Your task to perform on an android device: empty trash in the gmail app Image 0: 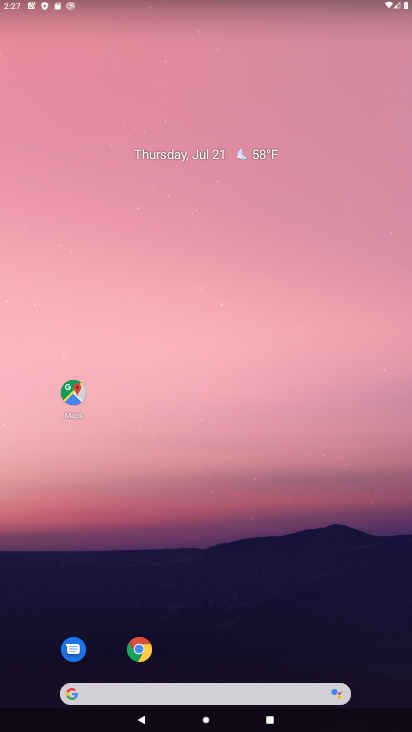
Step 0: drag from (241, 640) to (247, 173)
Your task to perform on an android device: empty trash in the gmail app Image 1: 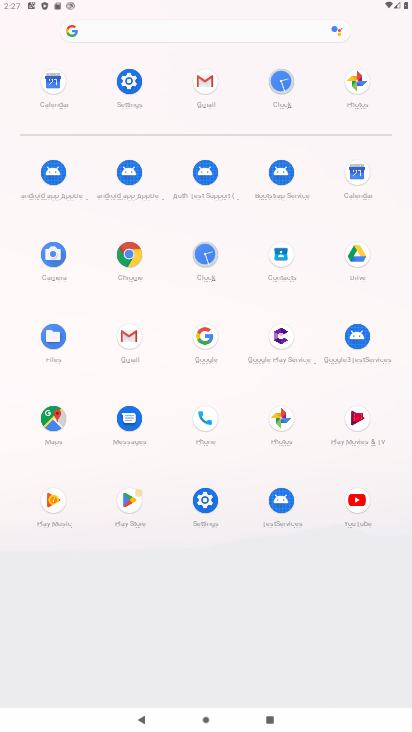
Step 1: click (111, 95)
Your task to perform on an android device: empty trash in the gmail app Image 2: 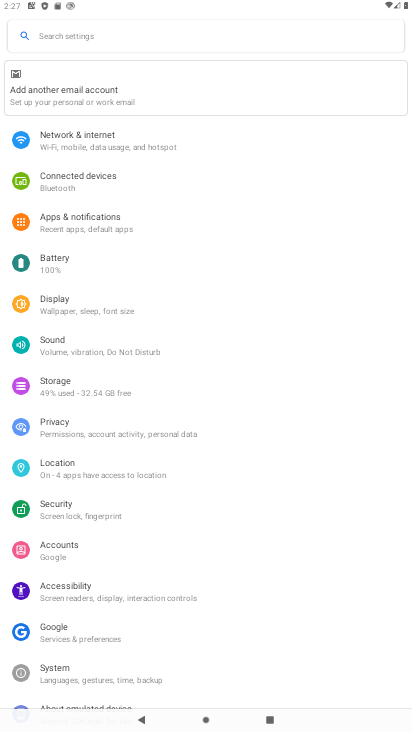
Step 2: task complete